Your task to perform on an android device: see tabs open on other devices in the chrome app Image 0: 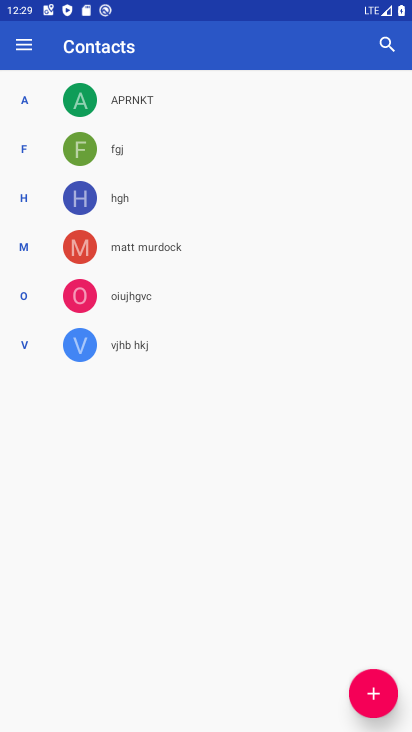
Step 0: press home button
Your task to perform on an android device: see tabs open on other devices in the chrome app Image 1: 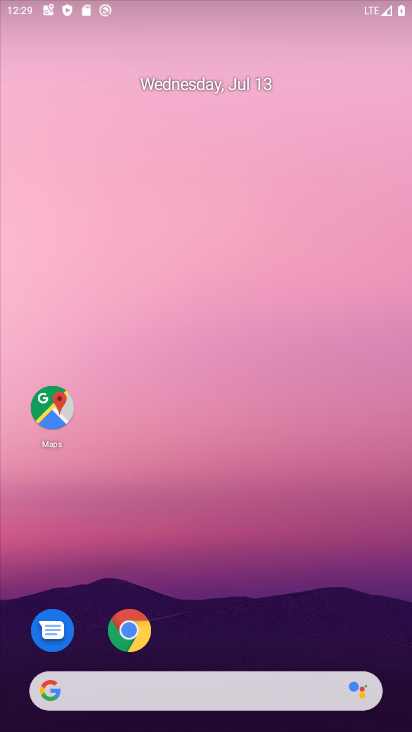
Step 1: drag from (396, 684) to (173, 32)
Your task to perform on an android device: see tabs open on other devices in the chrome app Image 2: 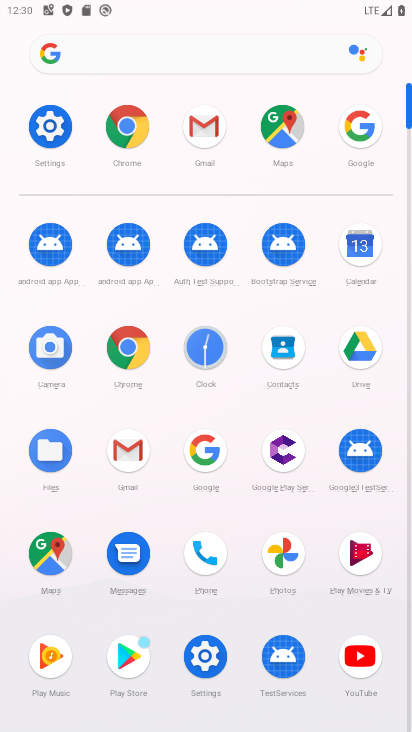
Step 2: click (121, 364)
Your task to perform on an android device: see tabs open on other devices in the chrome app Image 3: 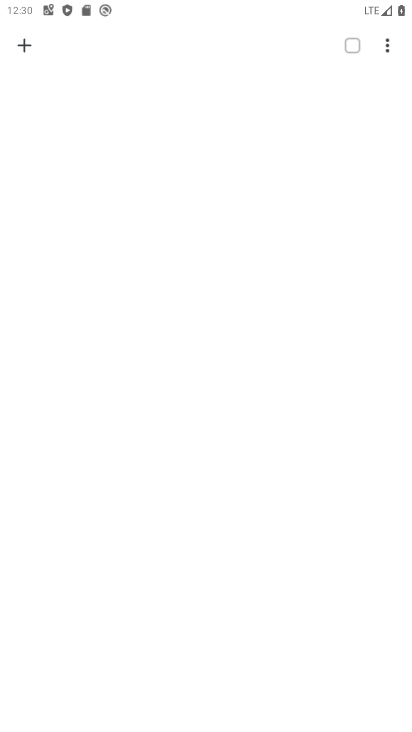
Step 3: task complete